Your task to perform on an android device: What's on my calendar tomorrow? Image 0: 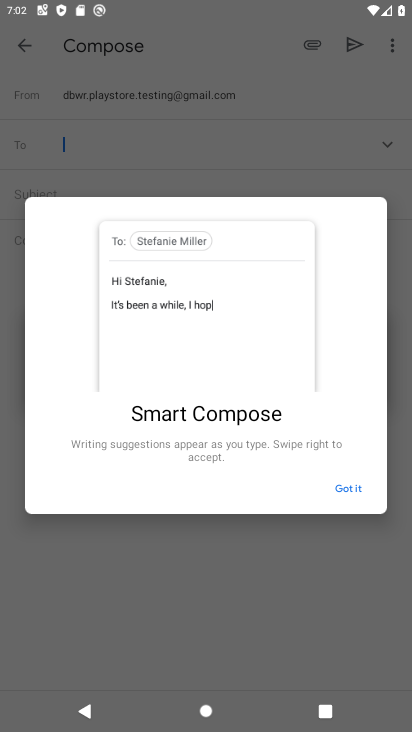
Step 0: press home button
Your task to perform on an android device: What's on my calendar tomorrow? Image 1: 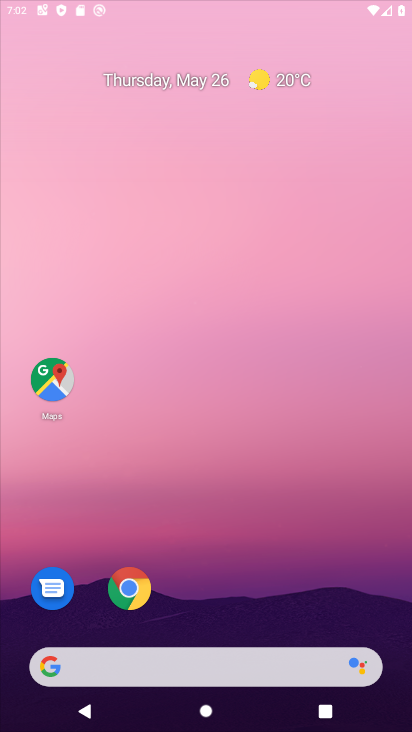
Step 1: drag from (377, 602) to (302, 13)
Your task to perform on an android device: What's on my calendar tomorrow? Image 2: 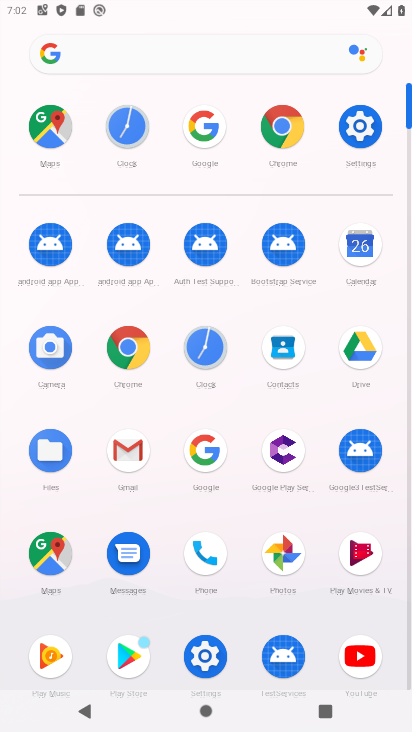
Step 2: click (361, 253)
Your task to perform on an android device: What's on my calendar tomorrow? Image 3: 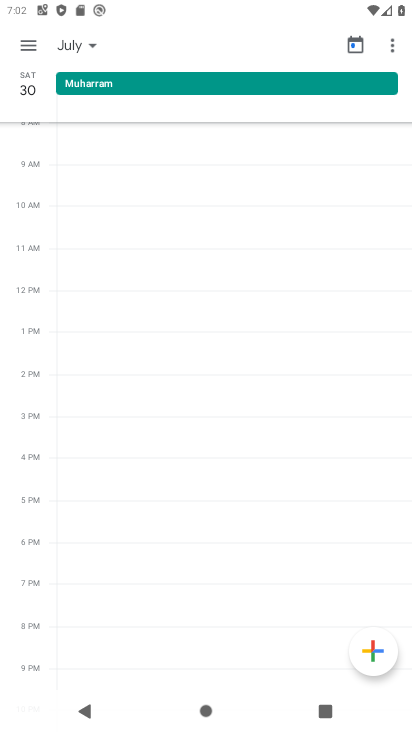
Step 3: click (75, 48)
Your task to perform on an android device: What's on my calendar tomorrow? Image 4: 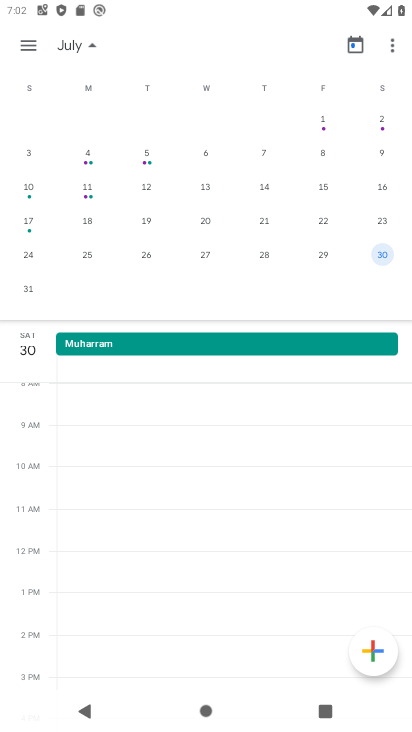
Step 4: click (268, 259)
Your task to perform on an android device: What's on my calendar tomorrow? Image 5: 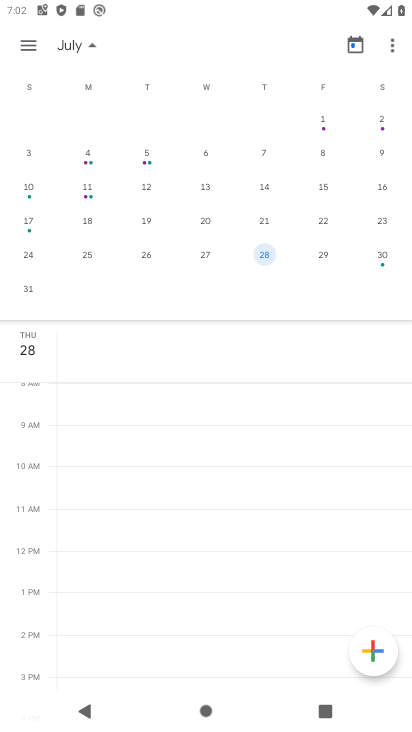
Step 5: task complete